Your task to perform on an android device: turn on bluetooth scan Image 0: 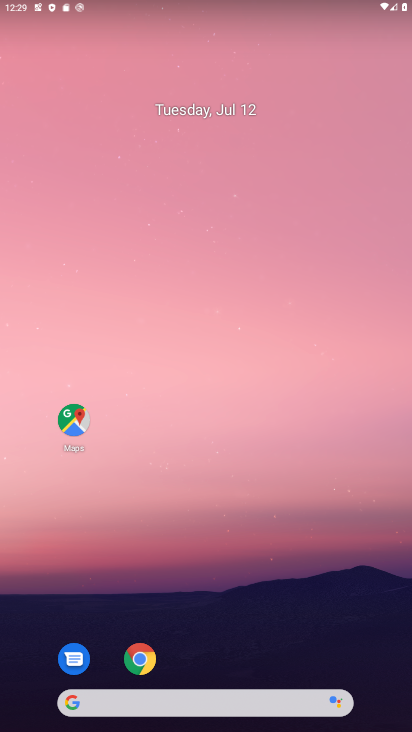
Step 0: drag from (212, 724) to (208, 123)
Your task to perform on an android device: turn on bluetooth scan Image 1: 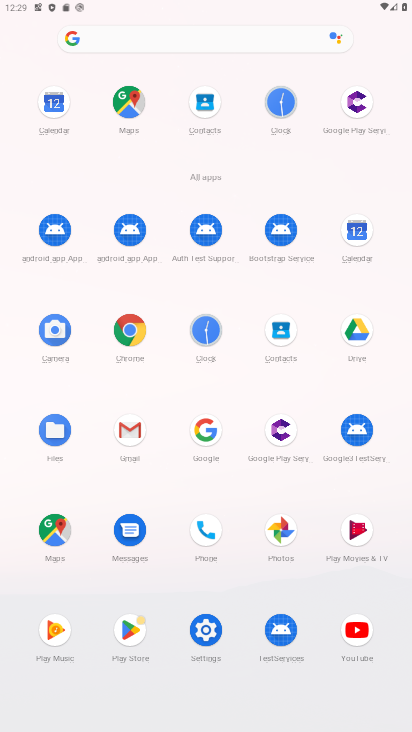
Step 1: click (204, 630)
Your task to perform on an android device: turn on bluetooth scan Image 2: 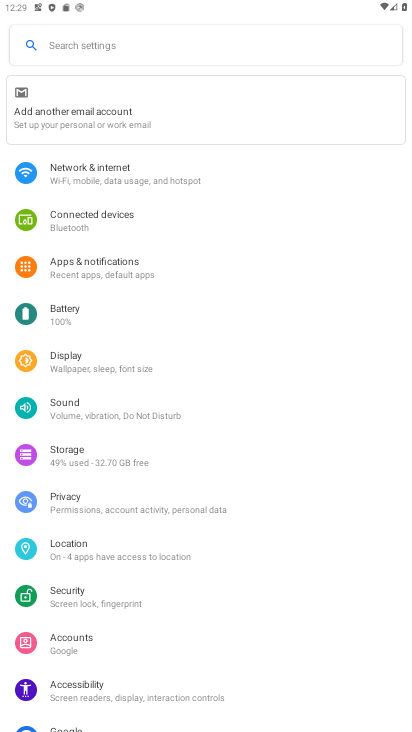
Step 2: click (80, 548)
Your task to perform on an android device: turn on bluetooth scan Image 3: 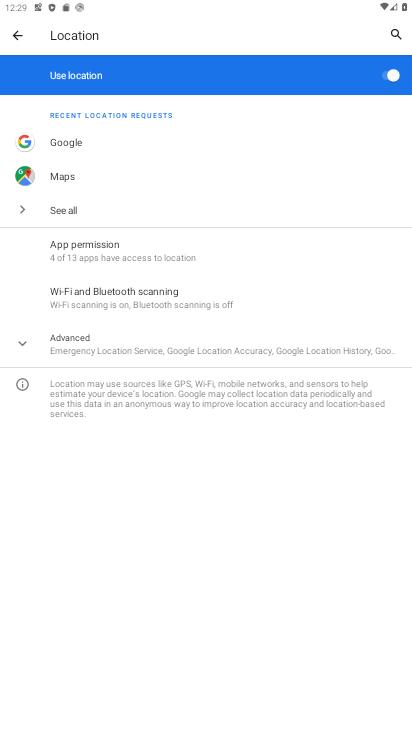
Step 3: click (148, 295)
Your task to perform on an android device: turn on bluetooth scan Image 4: 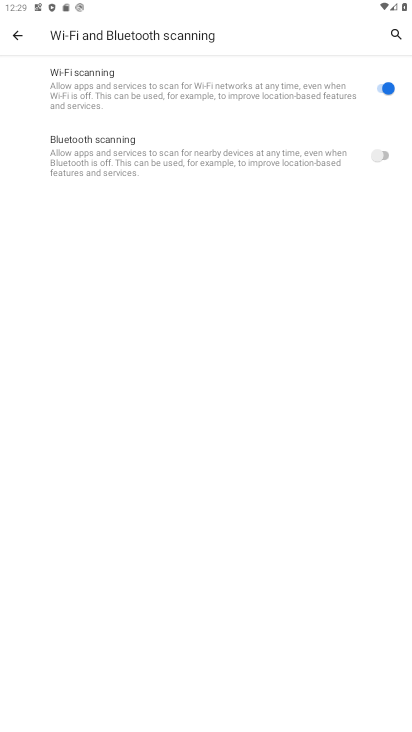
Step 4: click (389, 150)
Your task to perform on an android device: turn on bluetooth scan Image 5: 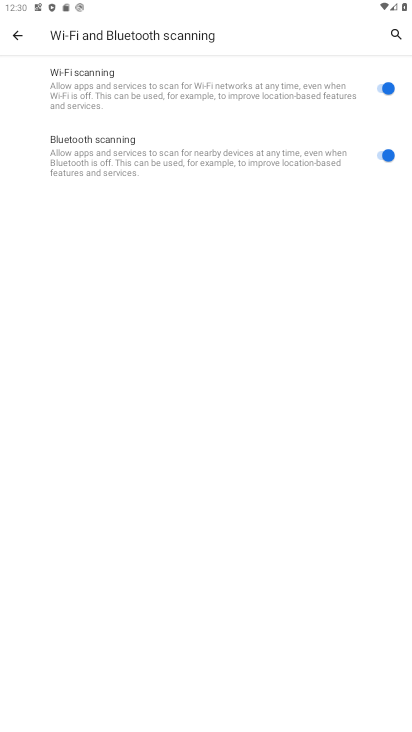
Step 5: task complete